Your task to perform on an android device: Open Google Image 0: 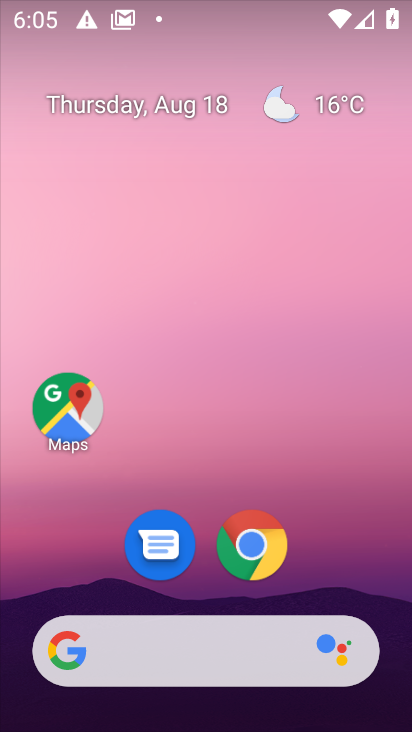
Step 0: click (149, 649)
Your task to perform on an android device: Open Google Image 1: 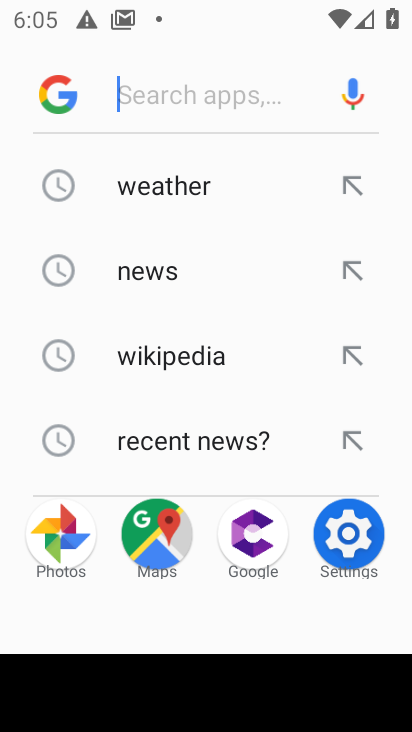
Step 1: click (57, 88)
Your task to perform on an android device: Open Google Image 2: 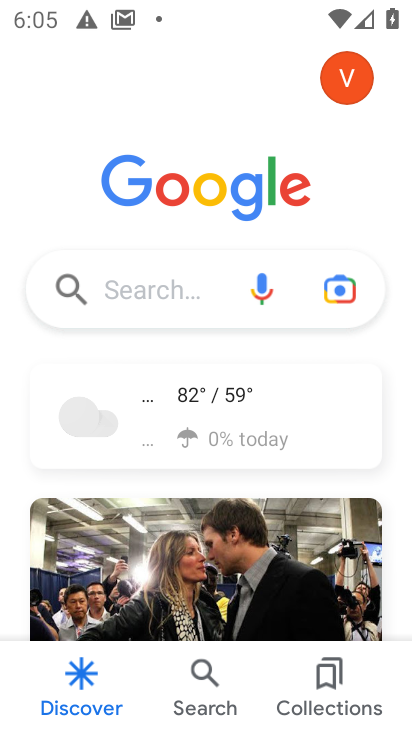
Step 2: task complete